Your task to perform on an android device: Open privacy settings Image 0: 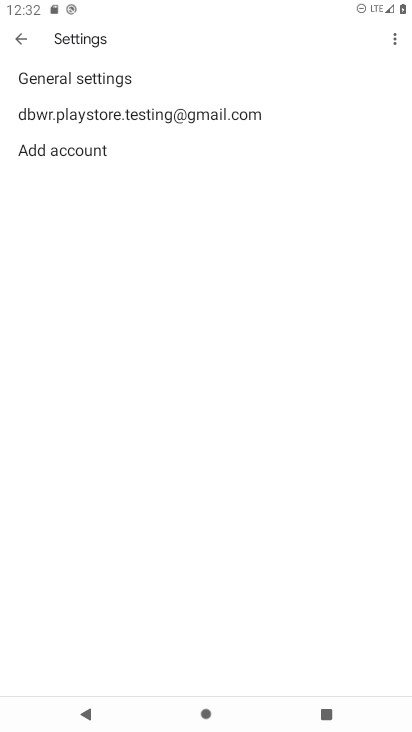
Step 0: press home button
Your task to perform on an android device: Open privacy settings Image 1: 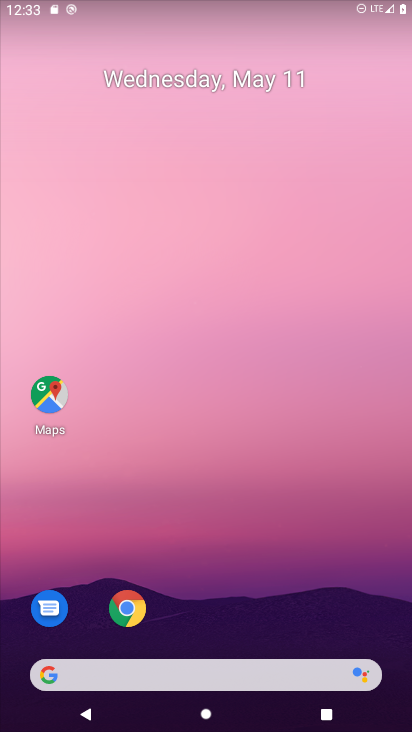
Step 1: drag from (288, 551) to (361, 88)
Your task to perform on an android device: Open privacy settings Image 2: 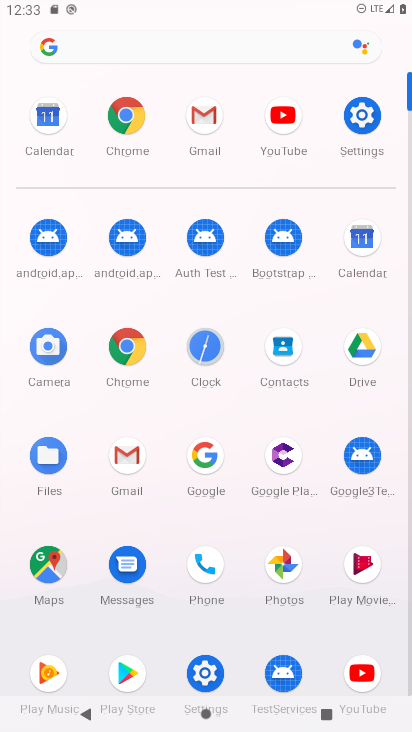
Step 2: click (357, 111)
Your task to perform on an android device: Open privacy settings Image 3: 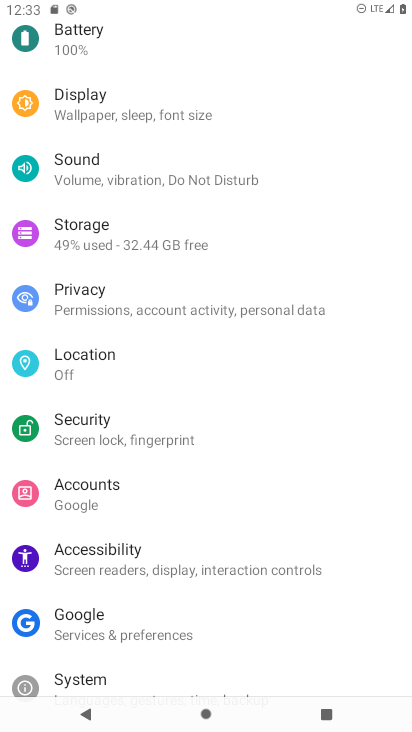
Step 3: click (200, 308)
Your task to perform on an android device: Open privacy settings Image 4: 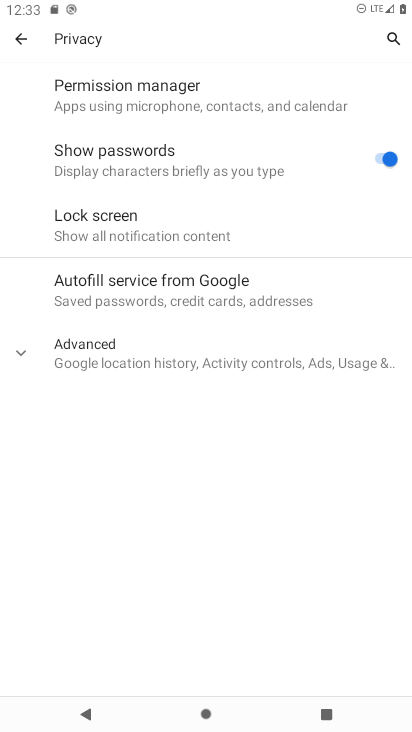
Step 4: task complete